Your task to perform on an android device: star an email in the gmail app Image 0: 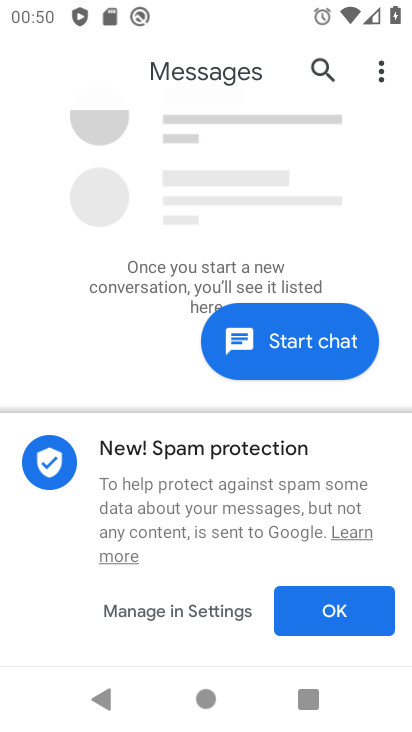
Step 0: press home button
Your task to perform on an android device: star an email in the gmail app Image 1: 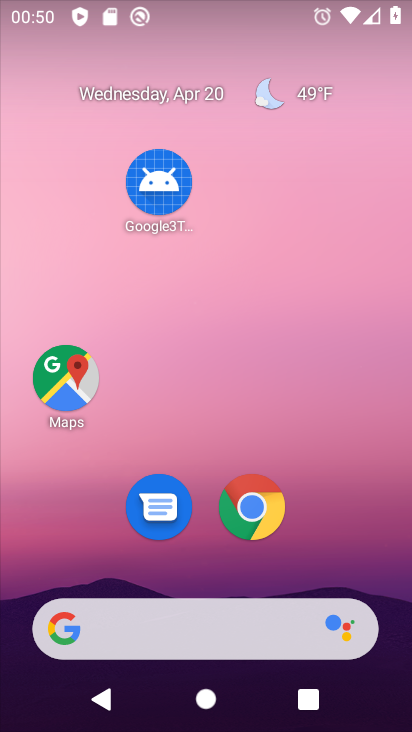
Step 1: drag from (192, 558) to (54, 21)
Your task to perform on an android device: star an email in the gmail app Image 2: 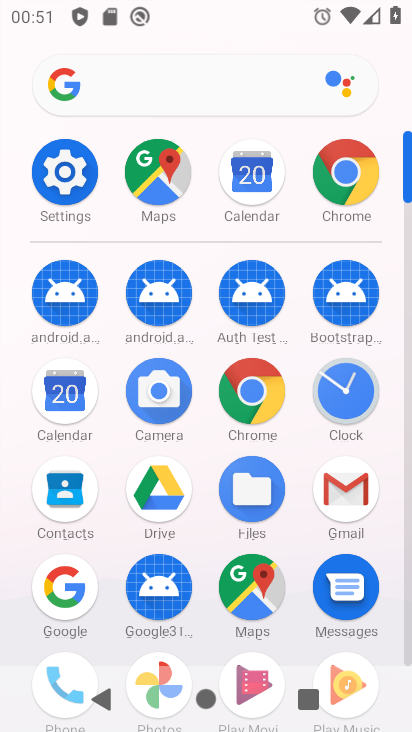
Step 2: click (347, 494)
Your task to perform on an android device: star an email in the gmail app Image 3: 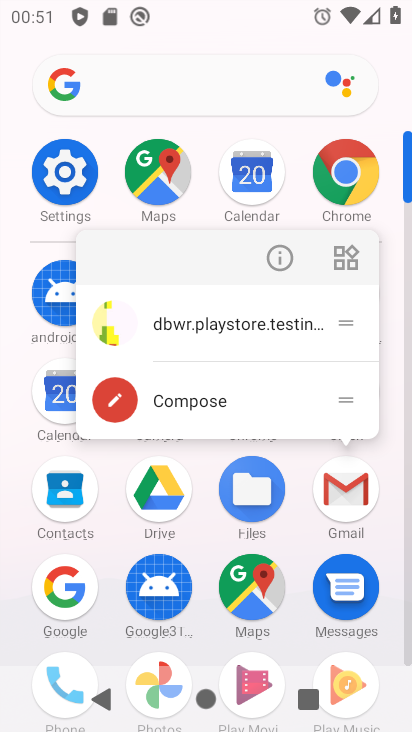
Step 3: click (347, 494)
Your task to perform on an android device: star an email in the gmail app Image 4: 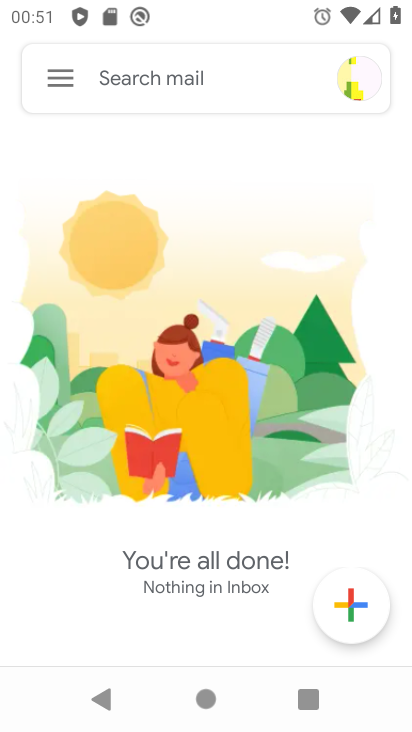
Step 4: click (58, 80)
Your task to perform on an android device: star an email in the gmail app Image 5: 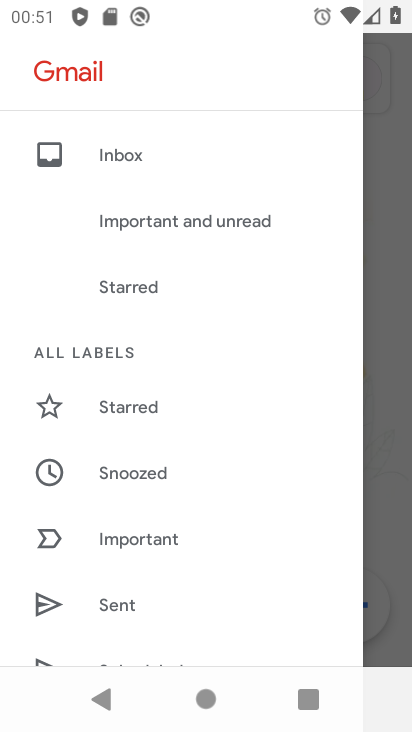
Step 5: drag from (167, 576) to (232, 125)
Your task to perform on an android device: star an email in the gmail app Image 6: 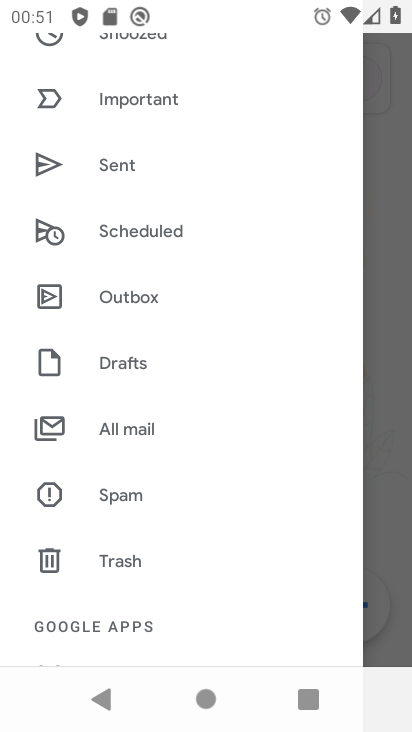
Step 6: drag from (170, 547) to (155, 247)
Your task to perform on an android device: star an email in the gmail app Image 7: 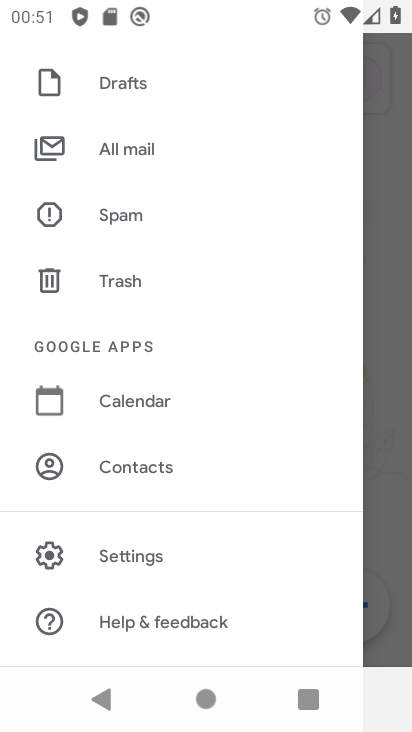
Step 7: click (119, 154)
Your task to perform on an android device: star an email in the gmail app Image 8: 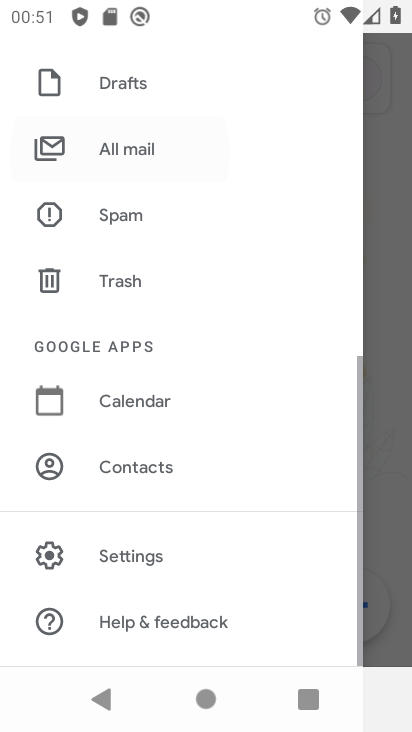
Step 8: click (126, 145)
Your task to perform on an android device: star an email in the gmail app Image 9: 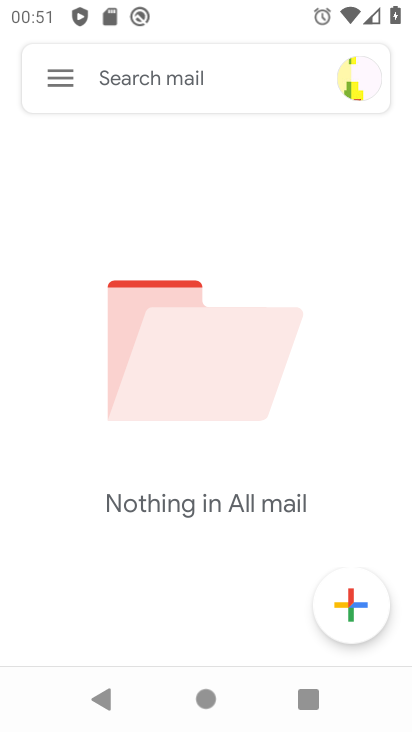
Step 9: task complete